Your task to perform on an android device: Open internet settings Image 0: 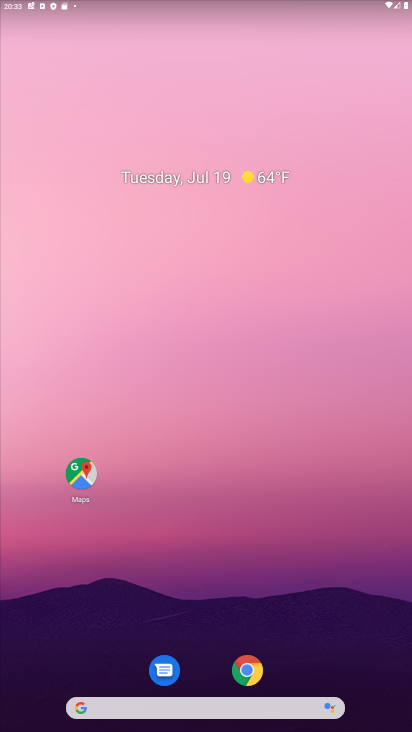
Step 0: drag from (286, 656) to (316, 24)
Your task to perform on an android device: Open internet settings Image 1: 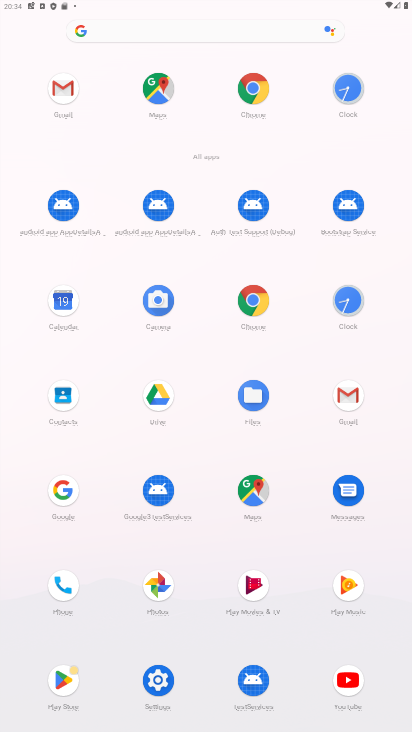
Step 1: click (151, 690)
Your task to perform on an android device: Open internet settings Image 2: 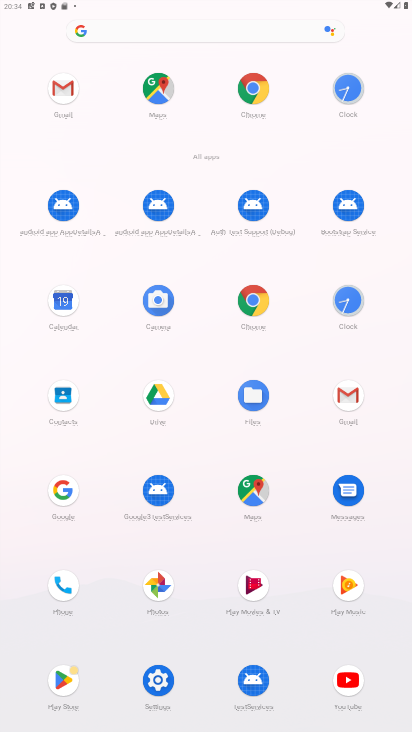
Step 2: click (151, 690)
Your task to perform on an android device: Open internet settings Image 3: 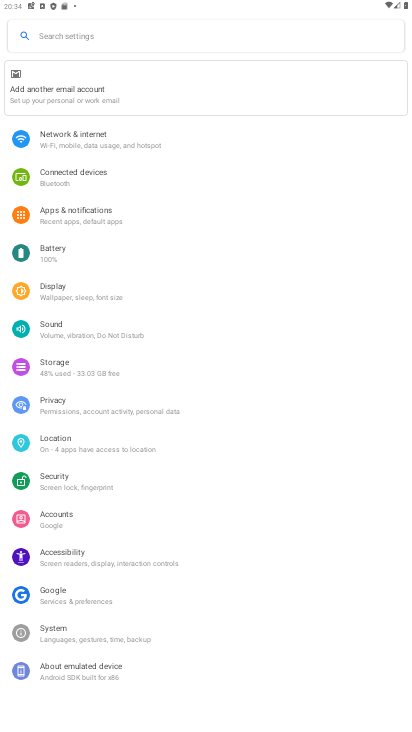
Step 3: click (186, 142)
Your task to perform on an android device: Open internet settings Image 4: 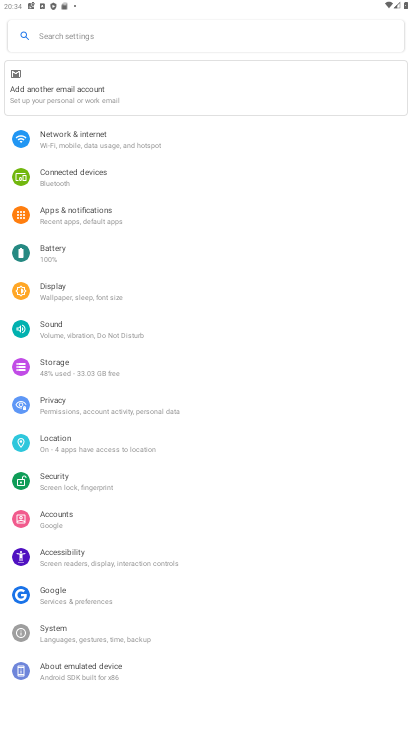
Step 4: click (186, 142)
Your task to perform on an android device: Open internet settings Image 5: 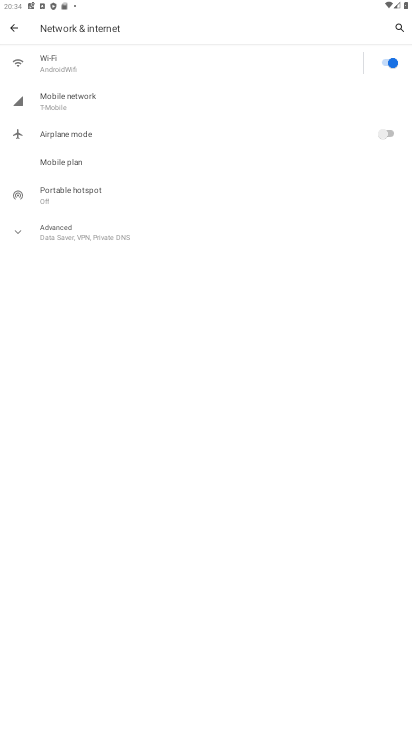
Step 5: task complete